Your task to perform on an android device: Go to Google Image 0: 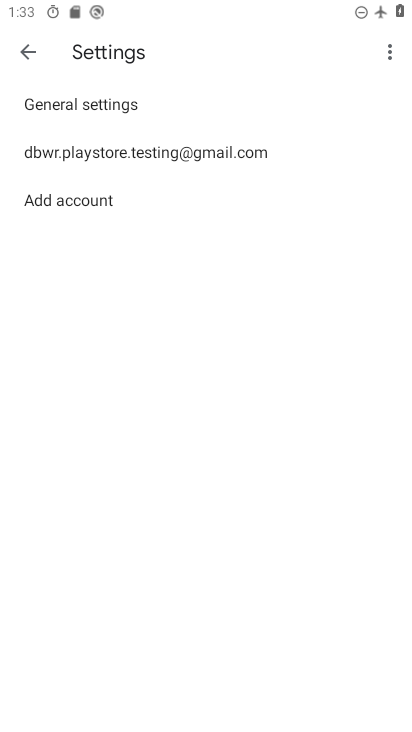
Step 0: press home button
Your task to perform on an android device: Go to Google Image 1: 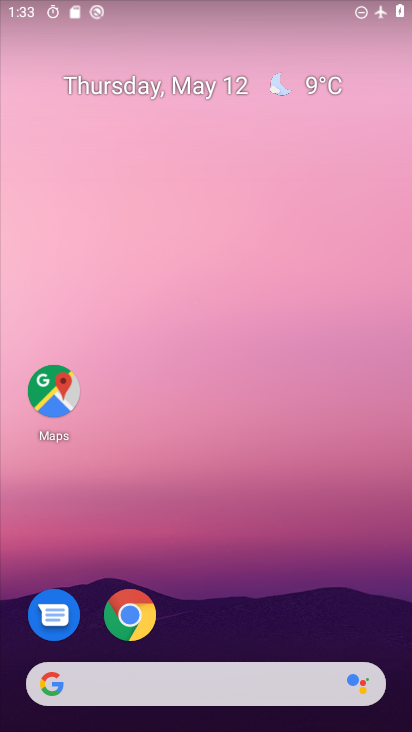
Step 1: drag from (280, 579) to (241, 76)
Your task to perform on an android device: Go to Google Image 2: 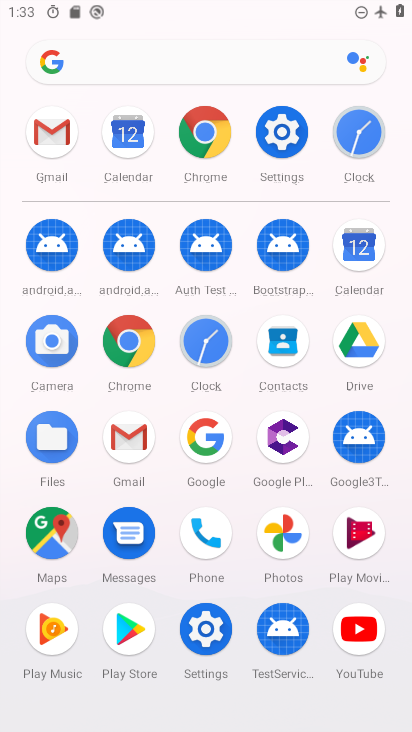
Step 2: click (203, 433)
Your task to perform on an android device: Go to Google Image 3: 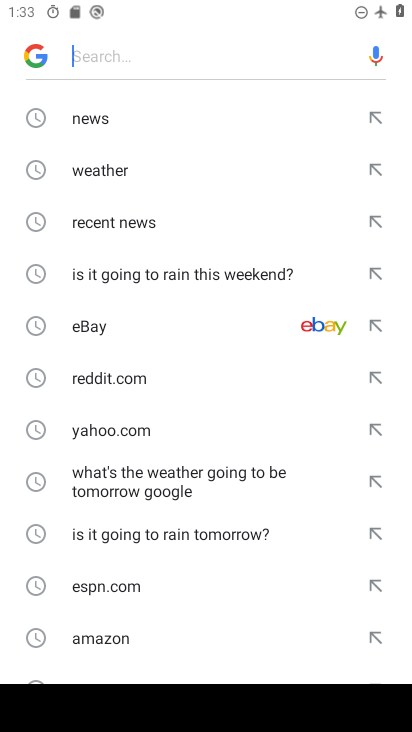
Step 3: task complete